Your task to perform on an android device: Open Wikipedia Image 0: 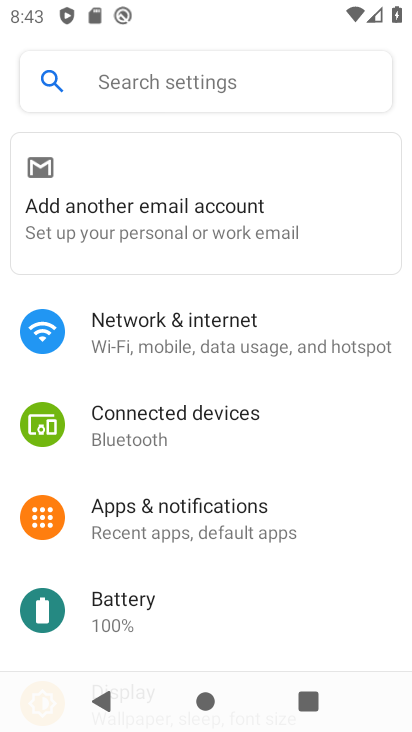
Step 0: press home button
Your task to perform on an android device: Open Wikipedia Image 1: 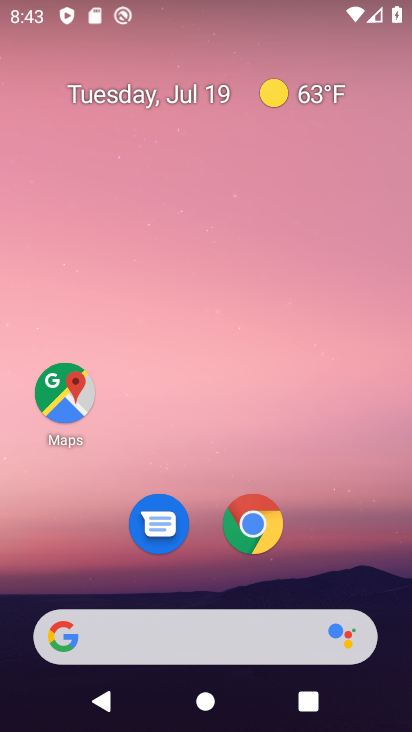
Step 1: click (251, 508)
Your task to perform on an android device: Open Wikipedia Image 2: 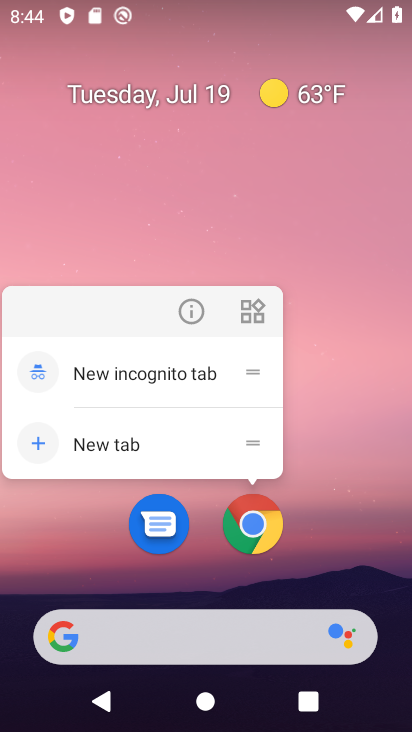
Step 2: click (253, 505)
Your task to perform on an android device: Open Wikipedia Image 3: 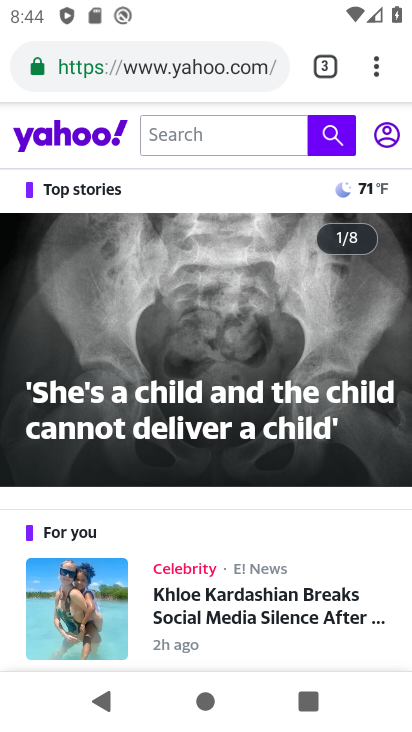
Step 3: drag from (381, 69) to (283, 148)
Your task to perform on an android device: Open Wikipedia Image 4: 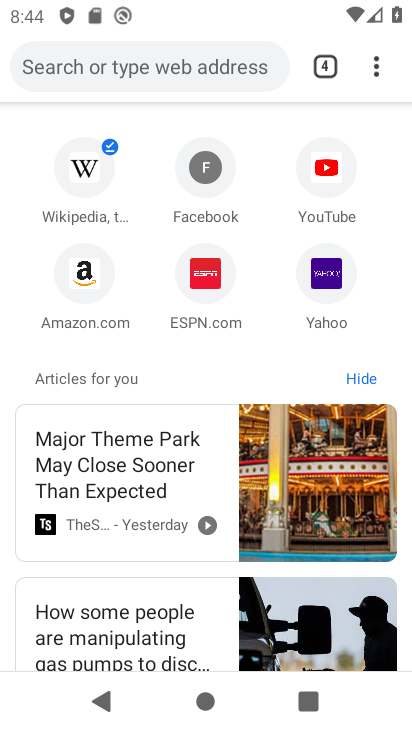
Step 4: click (72, 179)
Your task to perform on an android device: Open Wikipedia Image 5: 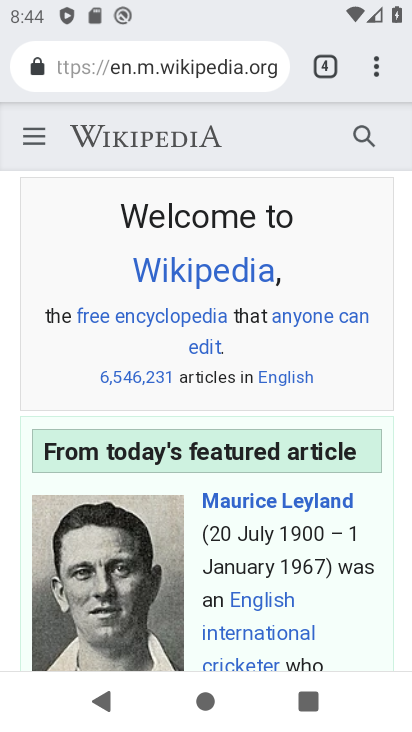
Step 5: task complete